Your task to perform on an android device: turn on wifi Image 0: 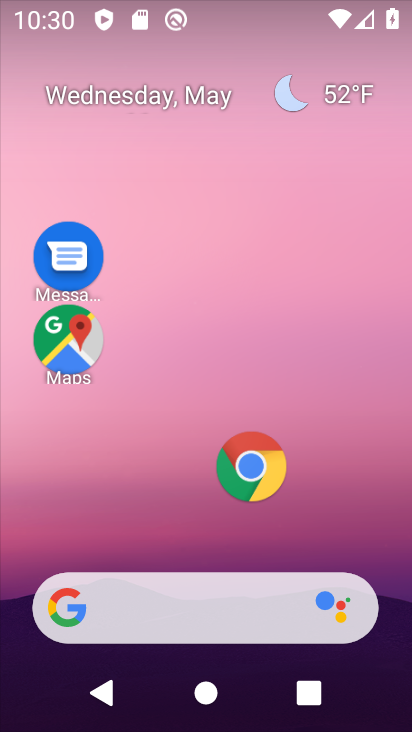
Step 0: drag from (180, 518) to (192, 80)
Your task to perform on an android device: turn on wifi Image 1: 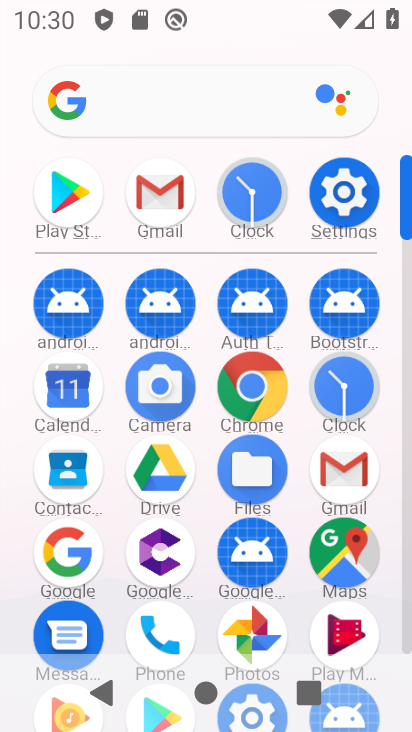
Step 1: click (342, 206)
Your task to perform on an android device: turn on wifi Image 2: 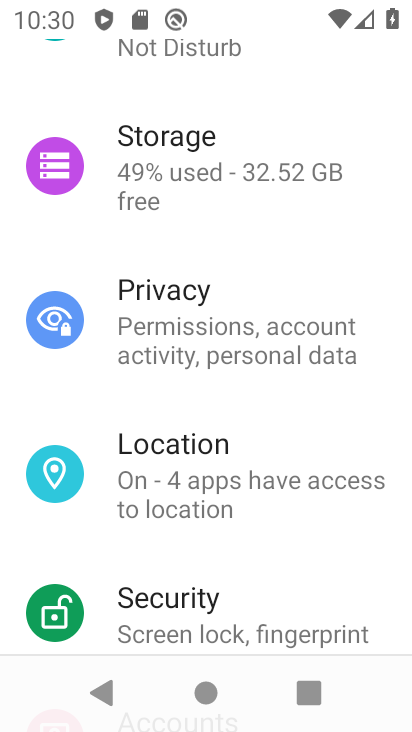
Step 2: drag from (199, 188) to (182, 727)
Your task to perform on an android device: turn on wifi Image 3: 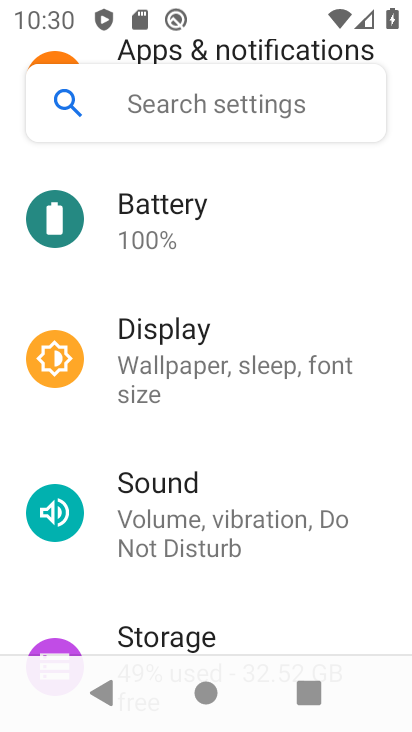
Step 3: drag from (178, 189) to (154, 709)
Your task to perform on an android device: turn on wifi Image 4: 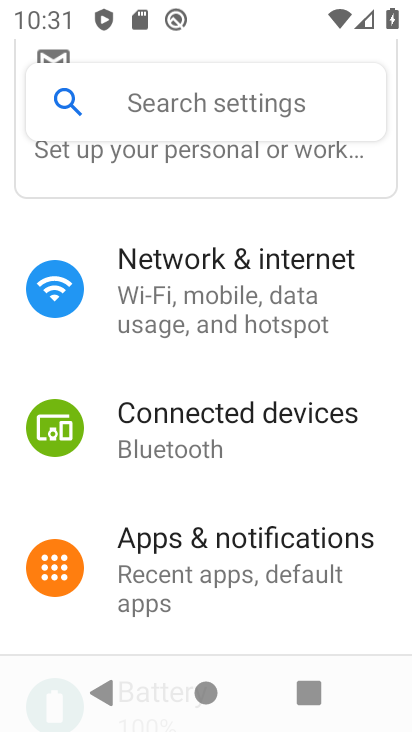
Step 4: click (211, 267)
Your task to perform on an android device: turn on wifi Image 5: 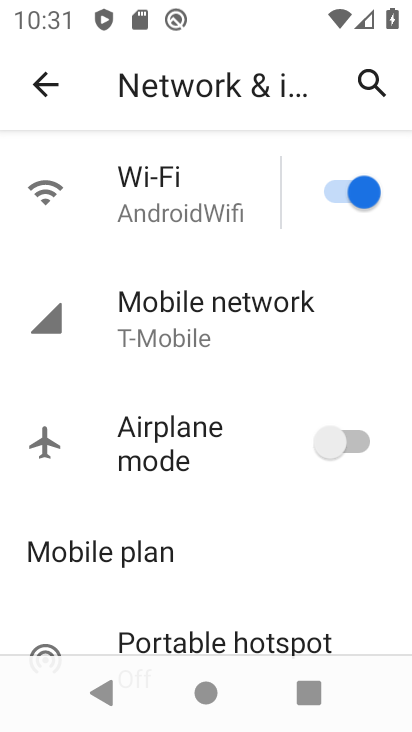
Step 5: task complete